Your task to perform on an android device: Open Google Chrome and open the bookmarks view Image 0: 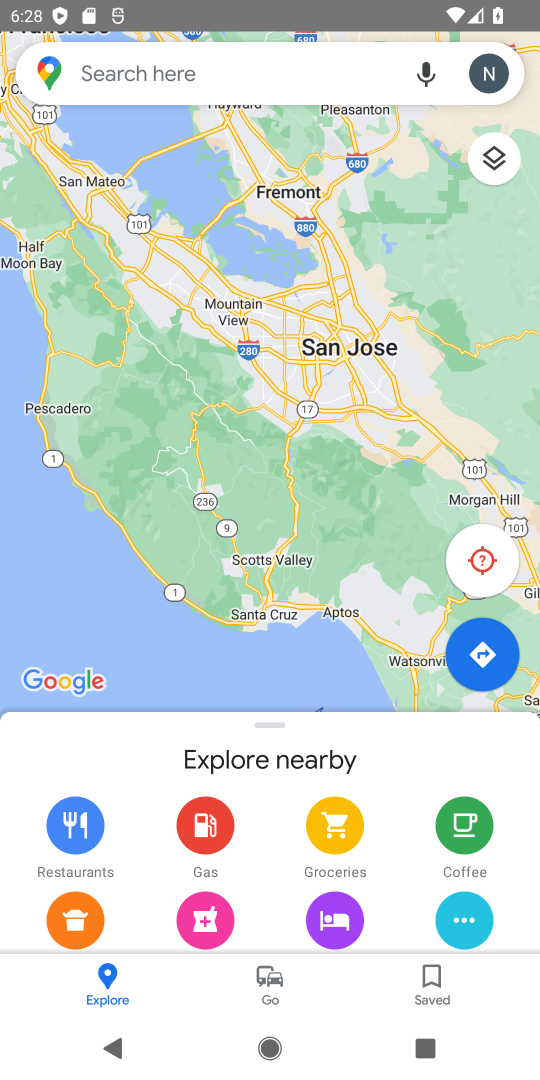
Step 0: press home button
Your task to perform on an android device: Open Google Chrome and open the bookmarks view Image 1: 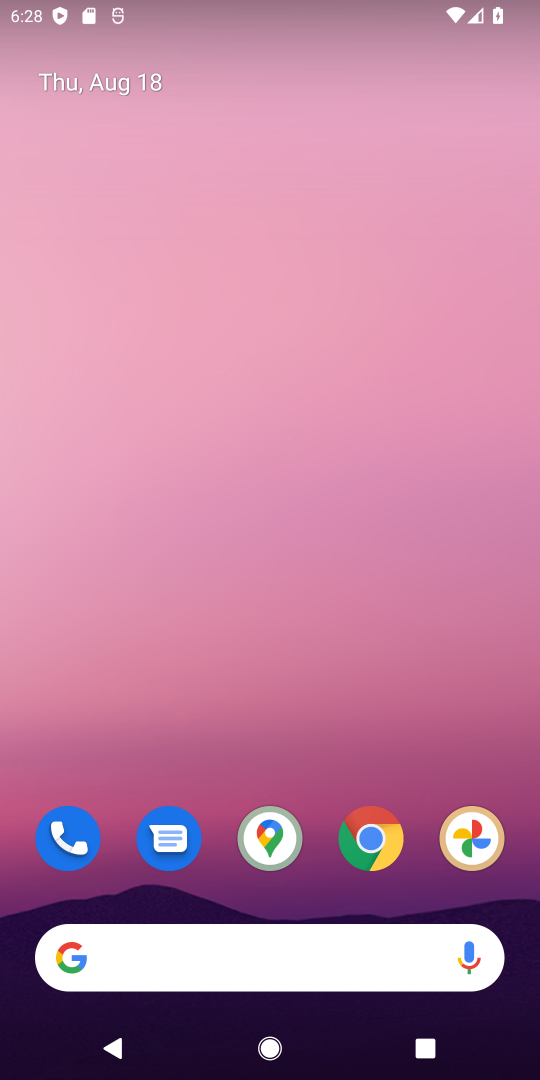
Step 1: click (370, 840)
Your task to perform on an android device: Open Google Chrome and open the bookmarks view Image 2: 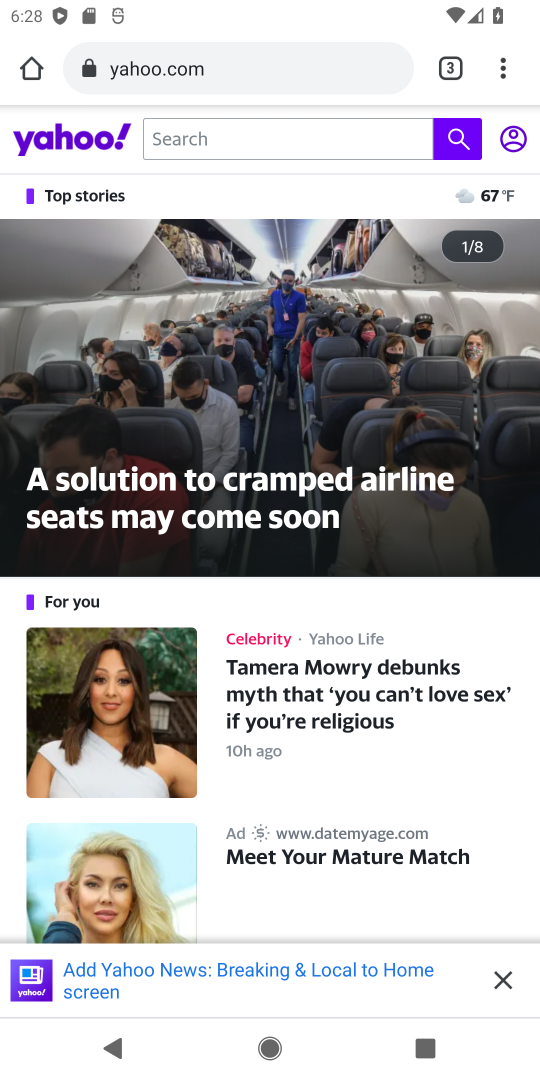
Step 2: task complete